Your task to perform on an android device: Go to Maps Image 0: 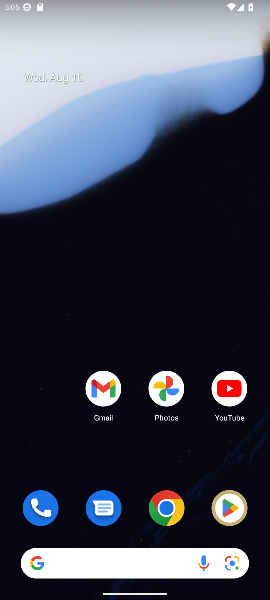
Step 0: press home button
Your task to perform on an android device: Go to Maps Image 1: 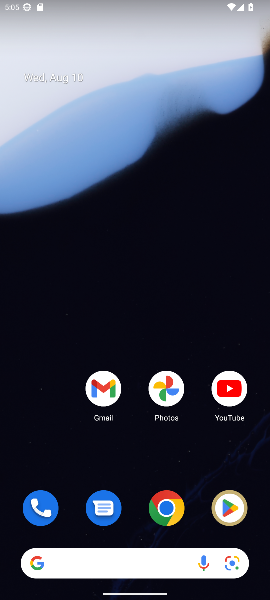
Step 1: drag from (140, 532) to (157, 69)
Your task to perform on an android device: Go to Maps Image 2: 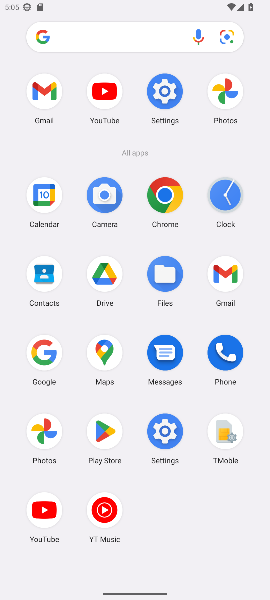
Step 2: click (101, 355)
Your task to perform on an android device: Go to Maps Image 3: 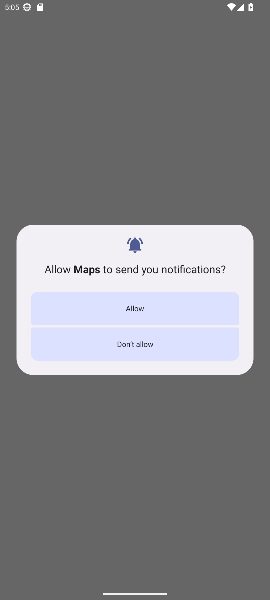
Step 3: click (123, 311)
Your task to perform on an android device: Go to Maps Image 4: 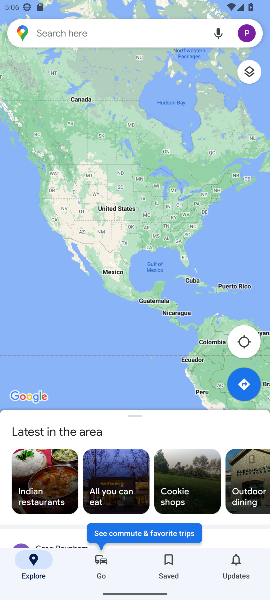
Step 4: task complete